Your task to perform on an android device: check the backup settings in the google photos Image 0: 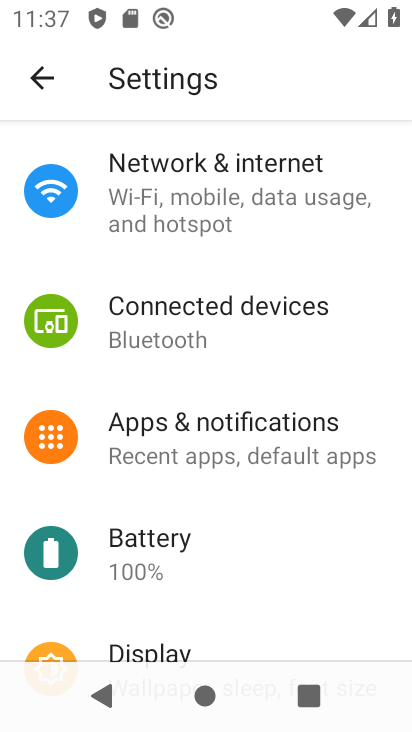
Step 0: press home button
Your task to perform on an android device: check the backup settings in the google photos Image 1: 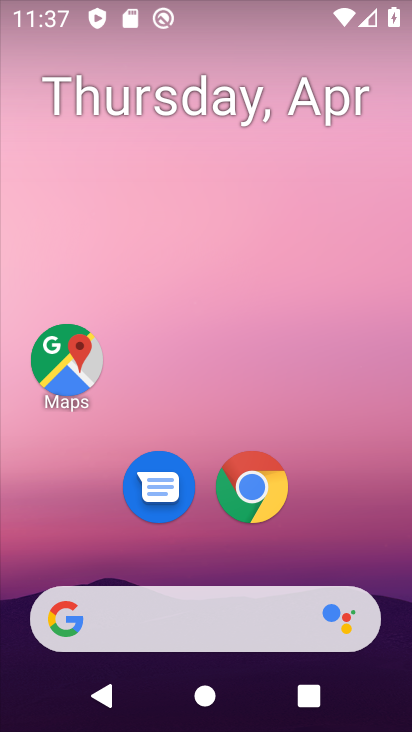
Step 1: drag from (231, 564) to (310, 199)
Your task to perform on an android device: check the backup settings in the google photos Image 2: 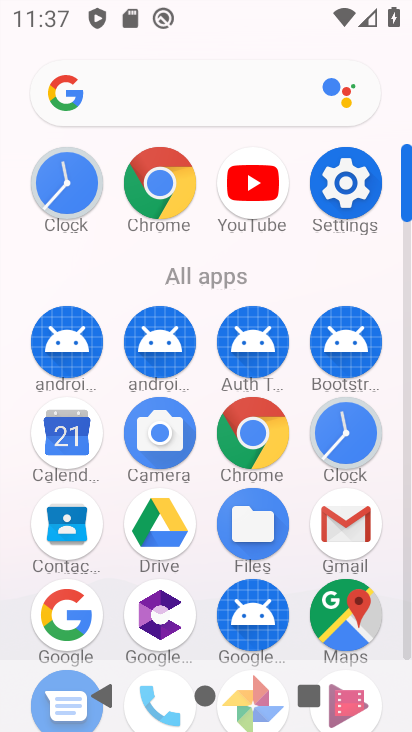
Step 2: drag from (284, 582) to (293, 300)
Your task to perform on an android device: check the backup settings in the google photos Image 3: 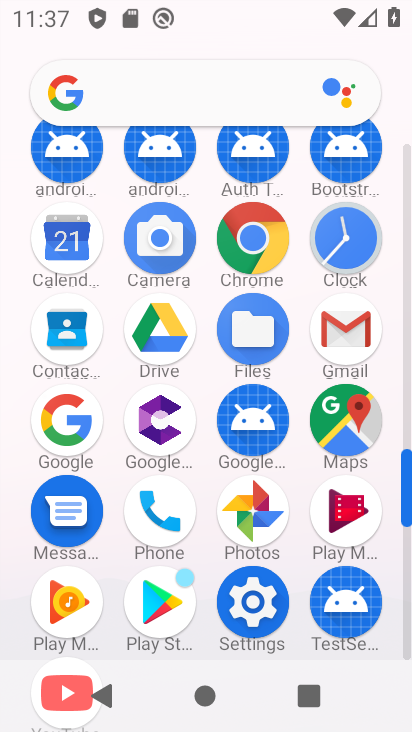
Step 3: click (259, 508)
Your task to perform on an android device: check the backup settings in the google photos Image 4: 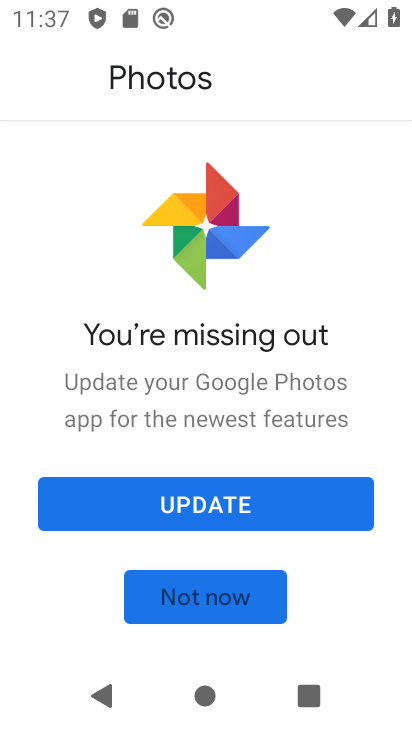
Step 4: click (193, 597)
Your task to perform on an android device: check the backup settings in the google photos Image 5: 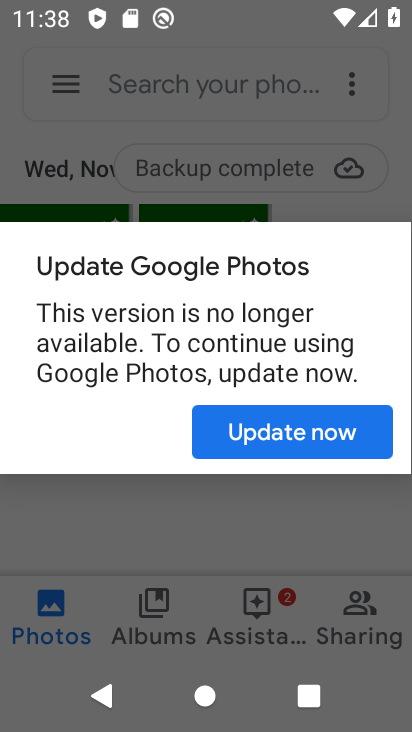
Step 5: click (297, 432)
Your task to perform on an android device: check the backup settings in the google photos Image 6: 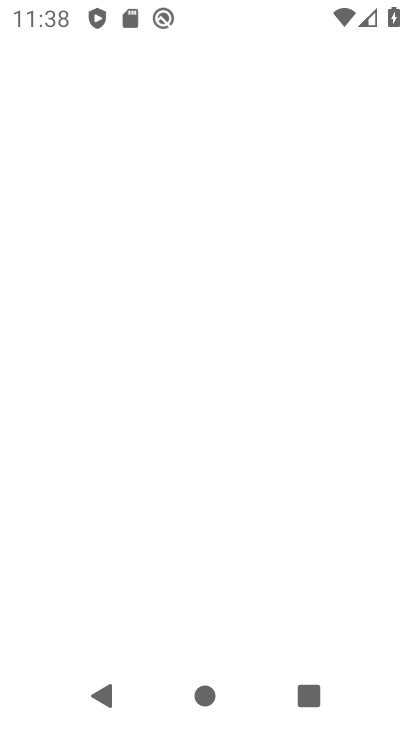
Step 6: press back button
Your task to perform on an android device: check the backup settings in the google photos Image 7: 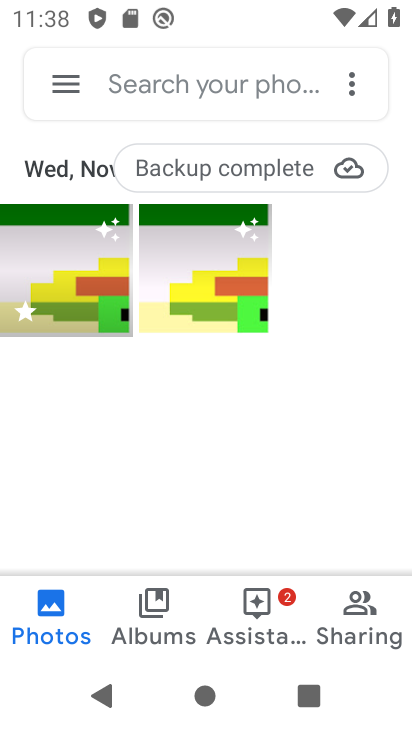
Step 7: click (73, 87)
Your task to perform on an android device: check the backup settings in the google photos Image 8: 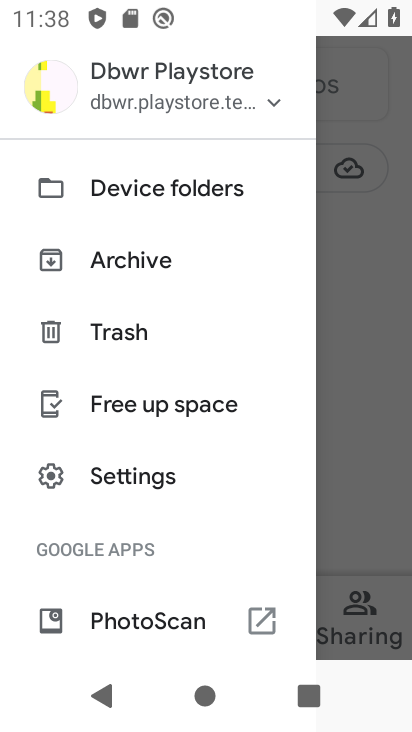
Step 8: click (158, 473)
Your task to perform on an android device: check the backup settings in the google photos Image 9: 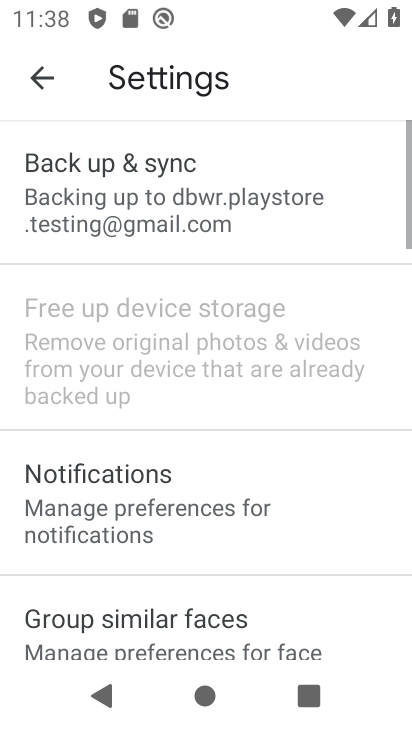
Step 9: click (166, 524)
Your task to perform on an android device: check the backup settings in the google photos Image 10: 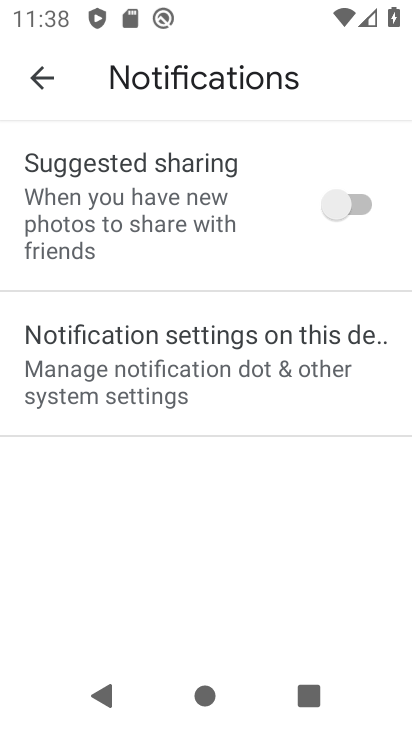
Step 10: click (187, 339)
Your task to perform on an android device: check the backup settings in the google photos Image 11: 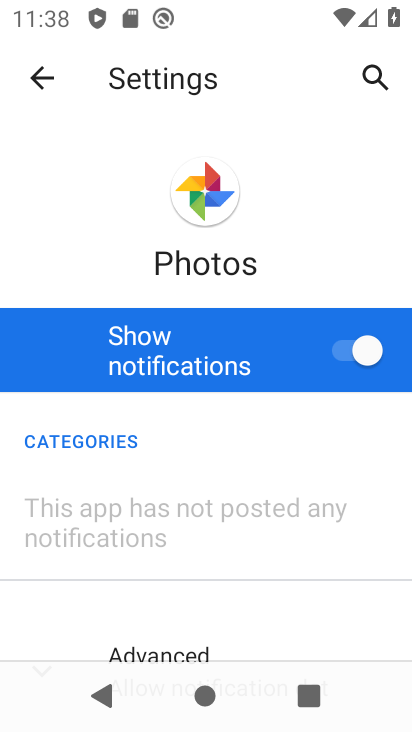
Step 11: click (53, 77)
Your task to perform on an android device: check the backup settings in the google photos Image 12: 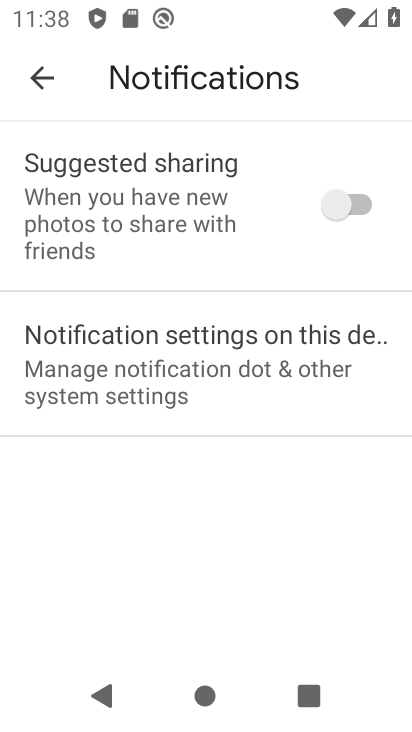
Step 12: click (35, 66)
Your task to perform on an android device: check the backup settings in the google photos Image 13: 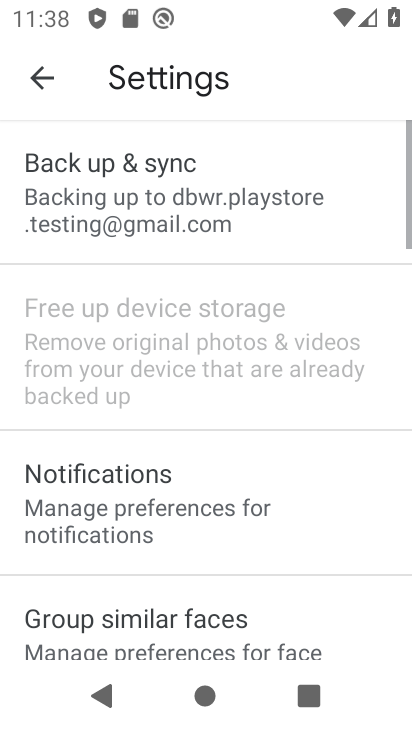
Step 13: click (115, 203)
Your task to perform on an android device: check the backup settings in the google photos Image 14: 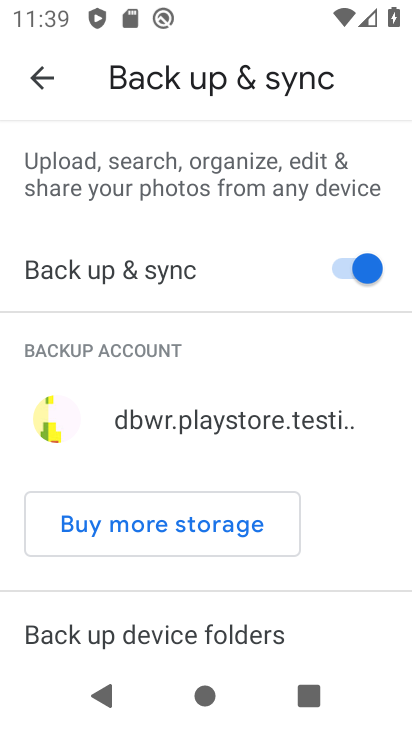
Step 14: task complete